Your task to perform on an android device: turn on the 24-hour format for clock Image 0: 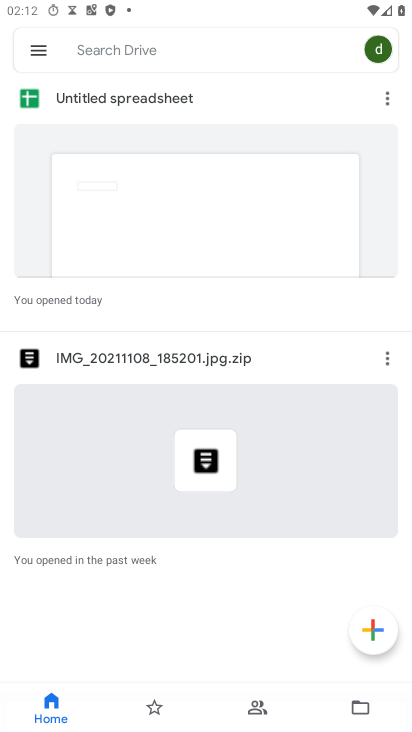
Step 0: press home button
Your task to perform on an android device: turn on the 24-hour format for clock Image 1: 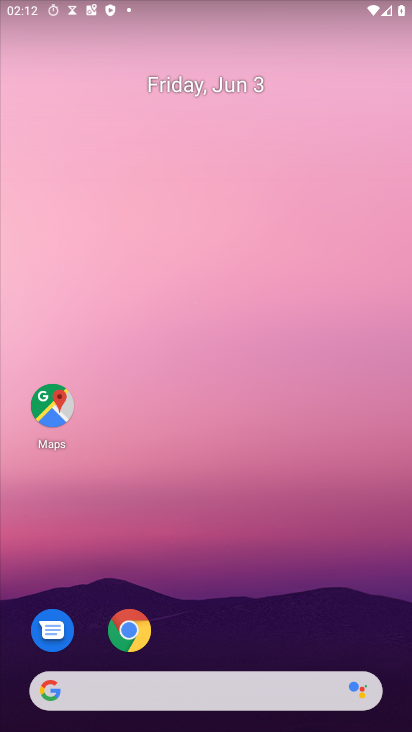
Step 1: drag from (251, 627) to (250, 138)
Your task to perform on an android device: turn on the 24-hour format for clock Image 2: 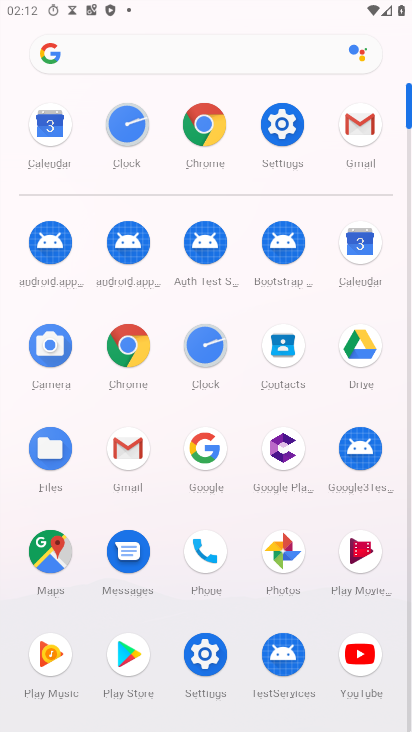
Step 2: click (126, 123)
Your task to perform on an android device: turn on the 24-hour format for clock Image 3: 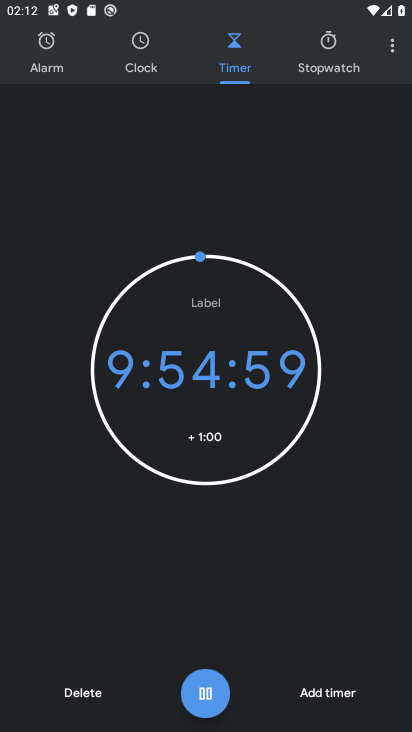
Step 3: click (399, 53)
Your task to perform on an android device: turn on the 24-hour format for clock Image 4: 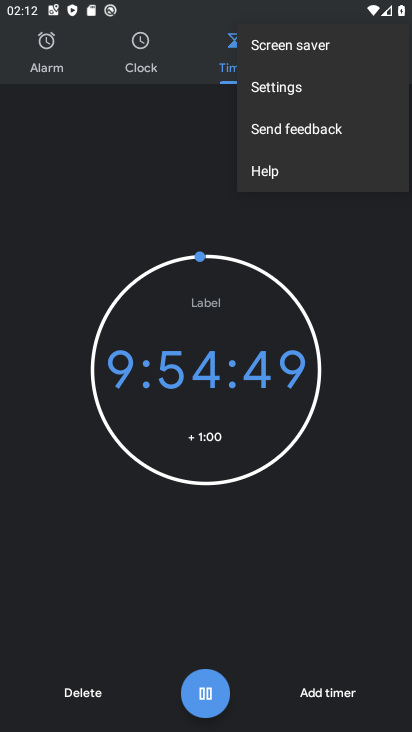
Step 4: click (342, 91)
Your task to perform on an android device: turn on the 24-hour format for clock Image 5: 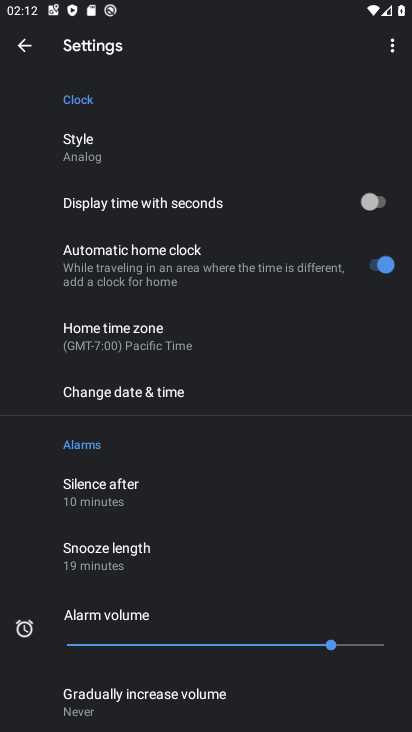
Step 5: click (232, 392)
Your task to perform on an android device: turn on the 24-hour format for clock Image 6: 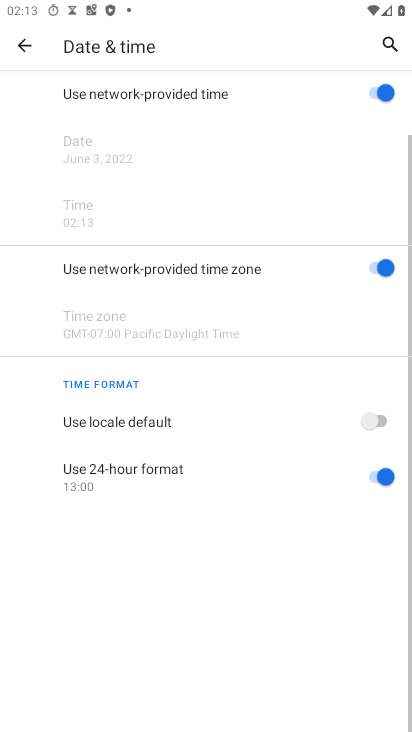
Step 6: task complete